Your task to perform on an android device: stop showing notifications on the lock screen Image 0: 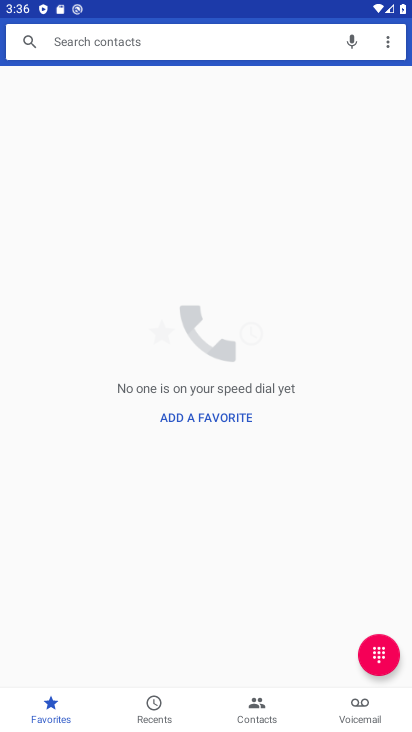
Step 0: press home button
Your task to perform on an android device: stop showing notifications on the lock screen Image 1: 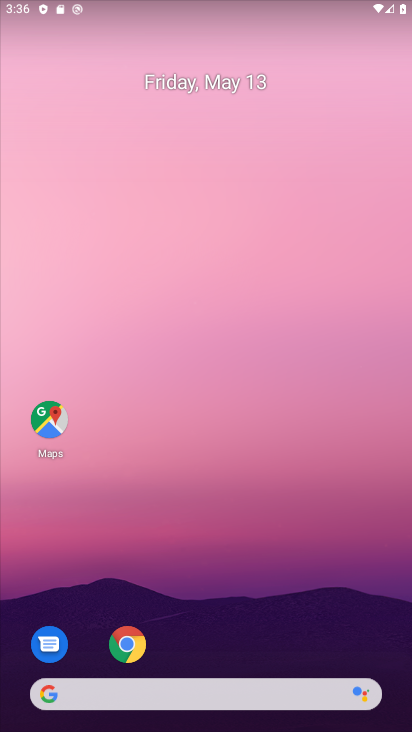
Step 1: drag from (359, 616) to (286, 75)
Your task to perform on an android device: stop showing notifications on the lock screen Image 2: 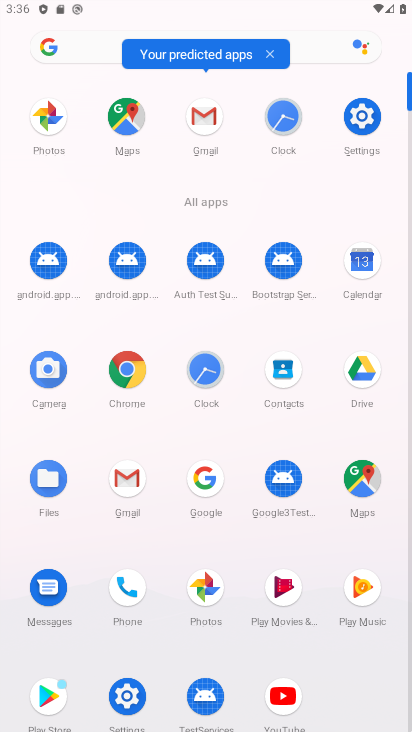
Step 2: click (360, 113)
Your task to perform on an android device: stop showing notifications on the lock screen Image 3: 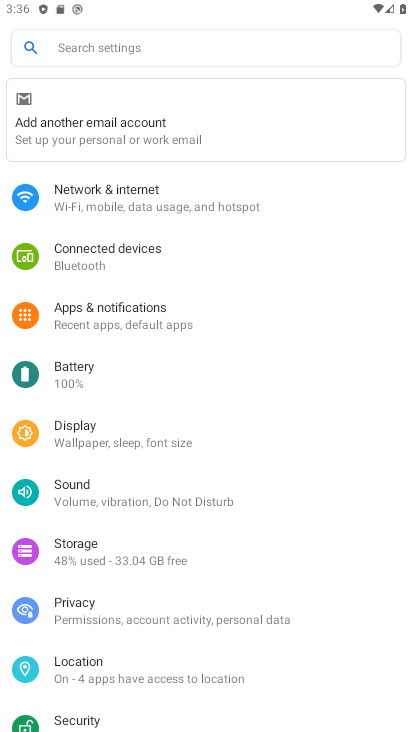
Step 3: click (137, 321)
Your task to perform on an android device: stop showing notifications on the lock screen Image 4: 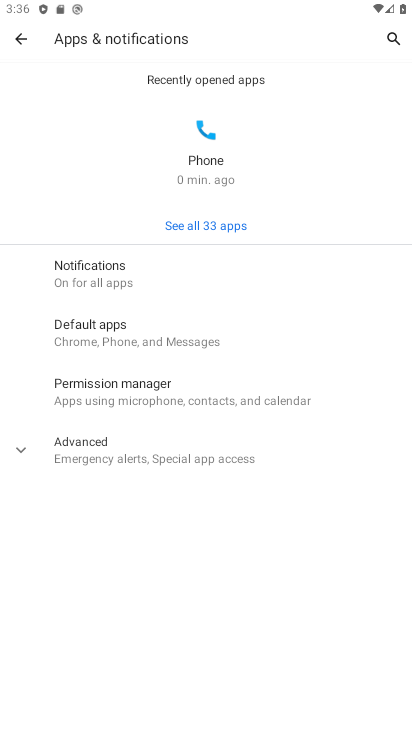
Step 4: click (107, 267)
Your task to perform on an android device: stop showing notifications on the lock screen Image 5: 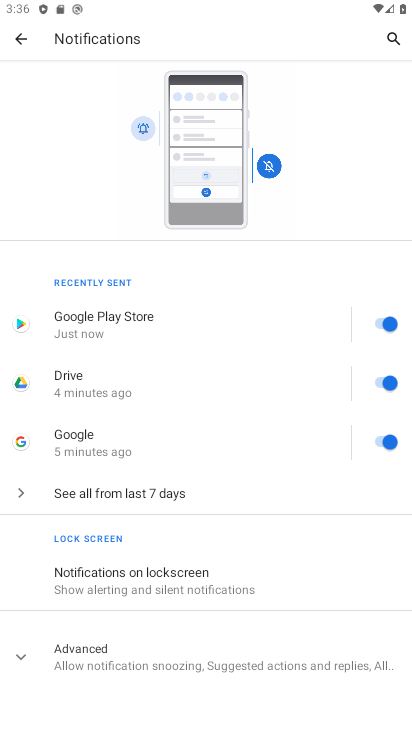
Step 5: click (255, 580)
Your task to perform on an android device: stop showing notifications on the lock screen Image 6: 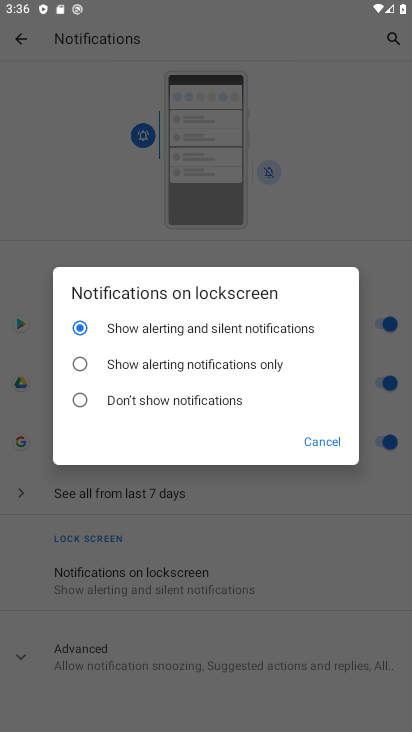
Step 6: click (128, 397)
Your task to perform on an android device: stop showing notifications on the lock screen Image 7: 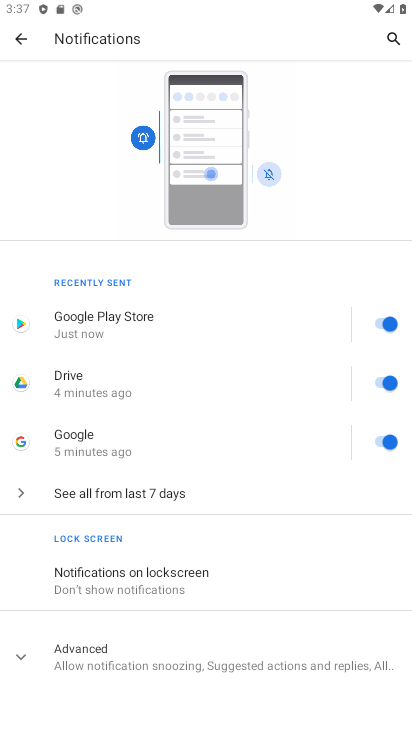
Step 7: task complete